Your task to perform on an android device: check the backup settings in the google photos Image 0: 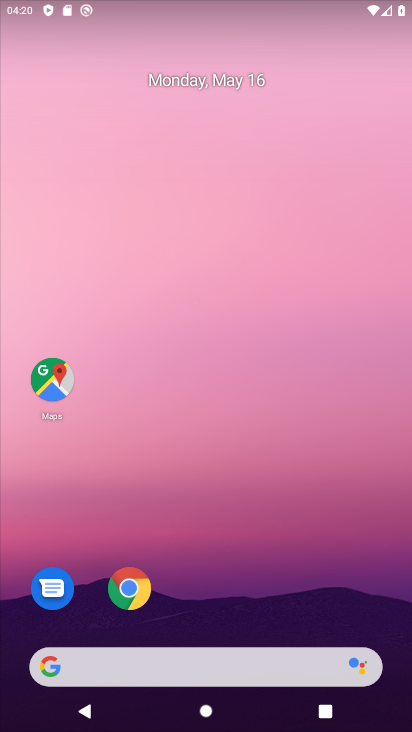
Step 0: drag from (326, 503) to (297, 16)
Your task to perform on an android device: check the backup settings in the google photos Image 1: 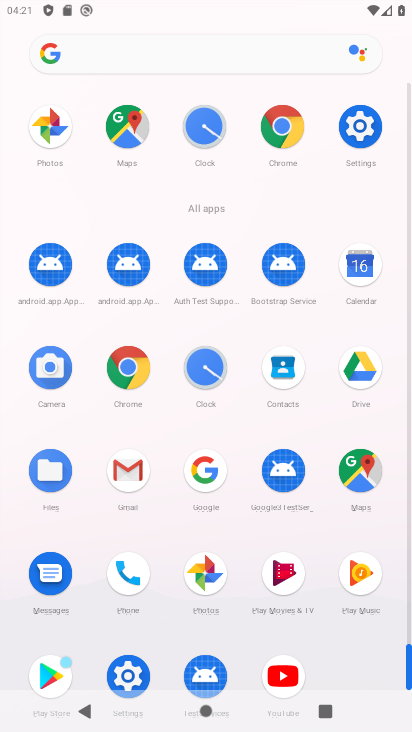
Step 1: drag from (7, 507) to (10, 249)
Your task to perform on an android device: check the backup settings in the google photos Image 2: 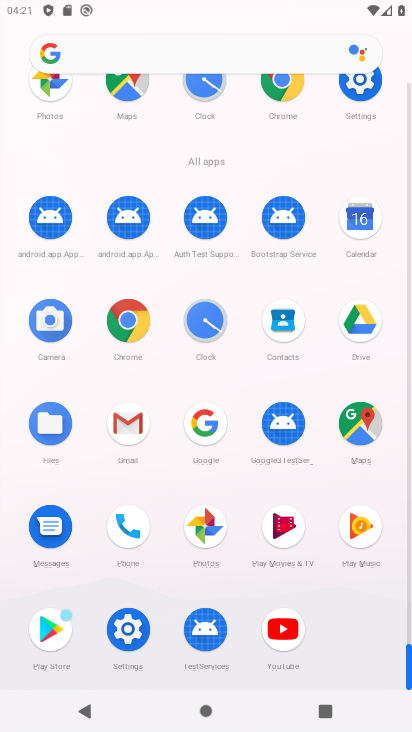
Step 2: drag from (7, 501) to (7, 196)
Your task to perform on an android device: check the backup settings in the google photos Image 3: 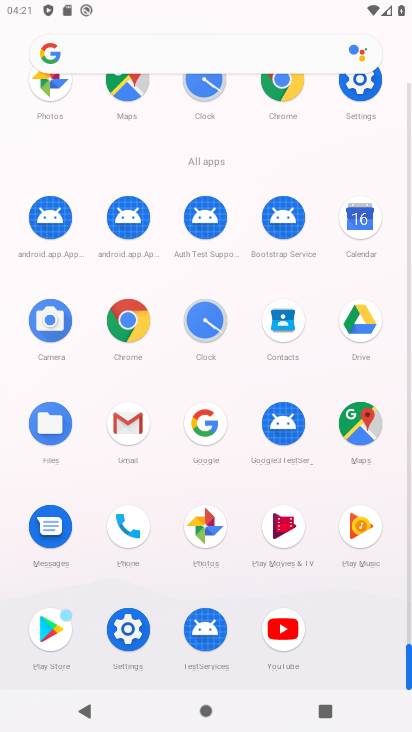
Step 3: click (206, 518)
Your task to perform on an android device: check the backup settings in the google photos Image 4: 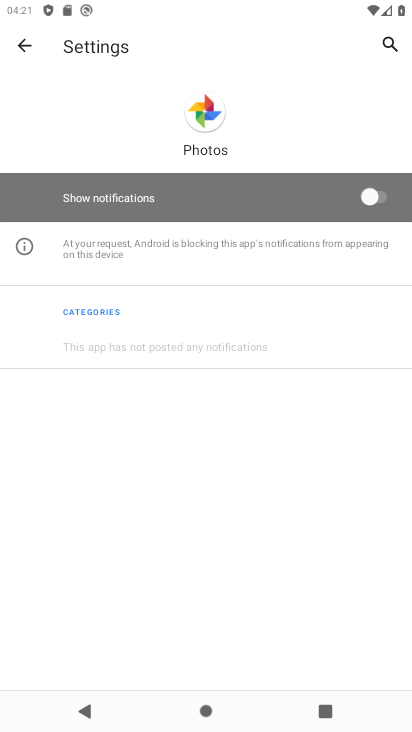
Step 4: click (16, 39)
Your task to perform on an android device: check the backup settings in the google photos Image 5: 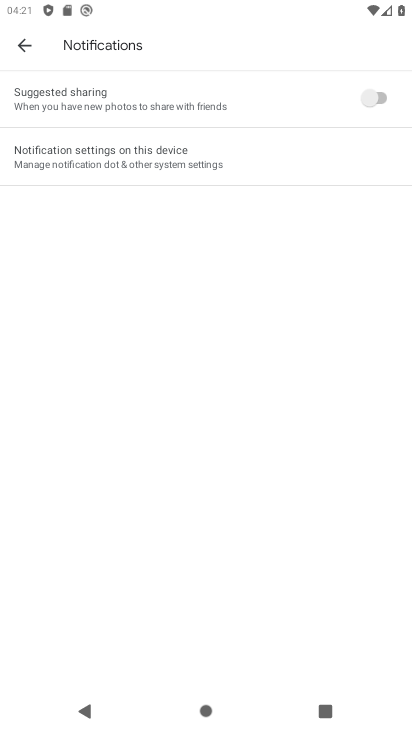
Step 5: click (154, 145)
Your task to perform on an android device: check the backup settings in the google photos Image 6: 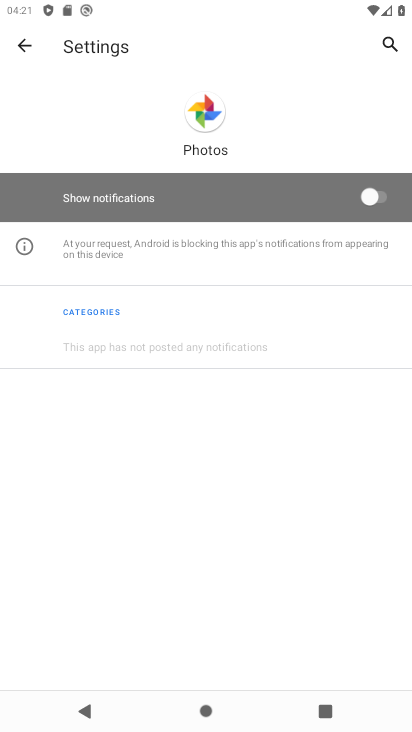
Step 6: click (28, 31)
Your task to perform on an android device: check the backup settings in the google photos Image 7: 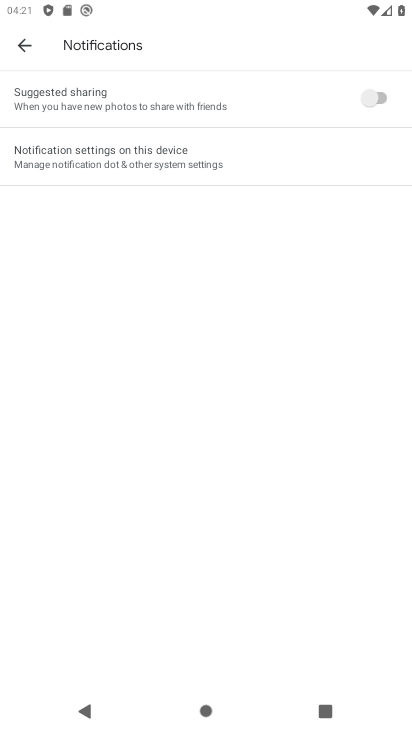
Step 7: click (166, 150)
Your task to perform on an android device: check the backup settings in the google photos Image 8: 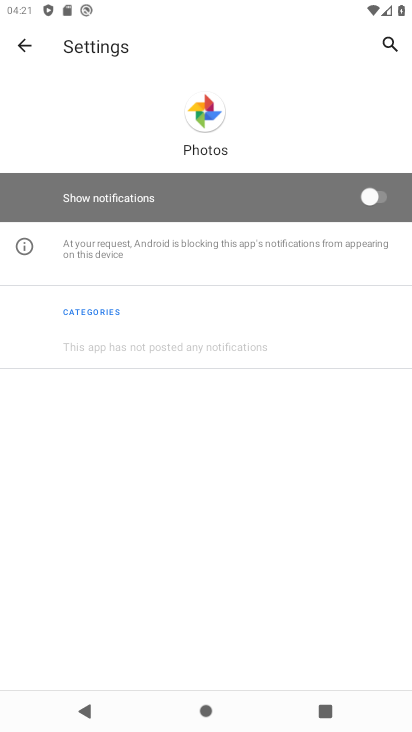
Step 8: click (12, 47)
Your task to perform on an android device: check the backup settings in the google photos Image 9: 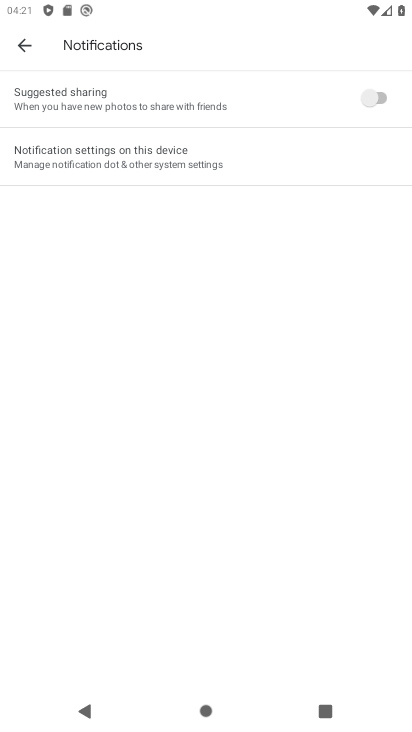
Step 9: click (12, 46)
Your task to perform on an android device: check the backup settings in the google photos Image 10: 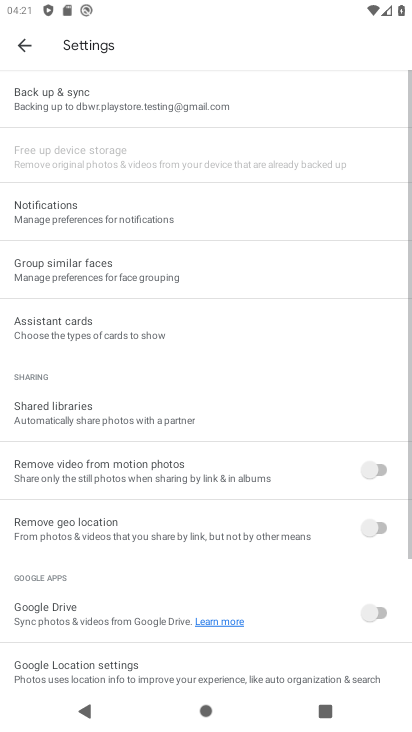
Step 10: click (88, 92)
Your task to perform on an android device: check the backup settings in the google photos Image 11: 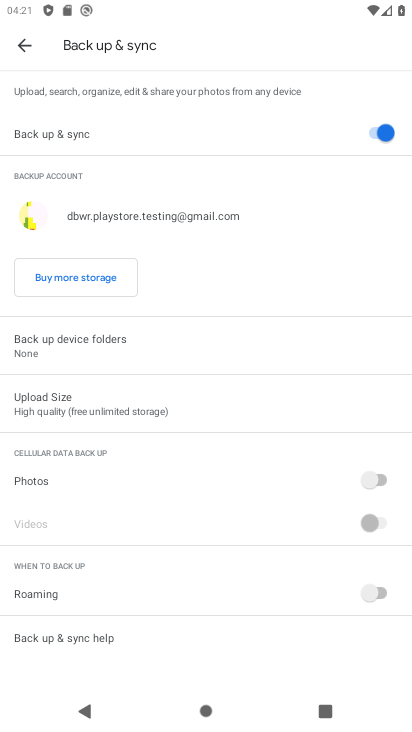
Step 11: task complete